Your task to perform on an android device: manage bookmarks in the chrome app Image 0: 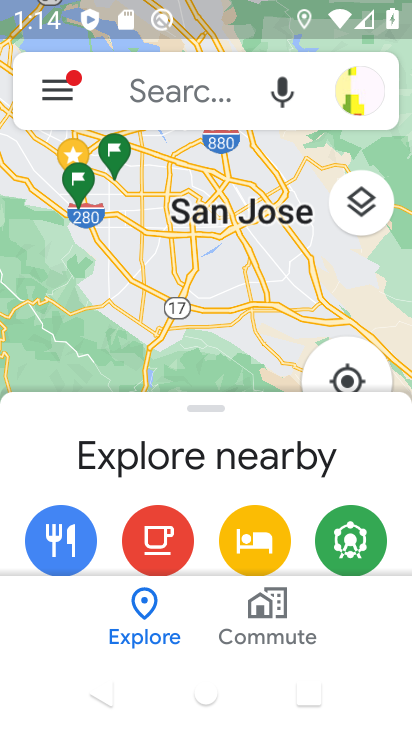
Step 0: press home button
Your task to perform on an android device: manage bookmarks in the chrome app Image 1: 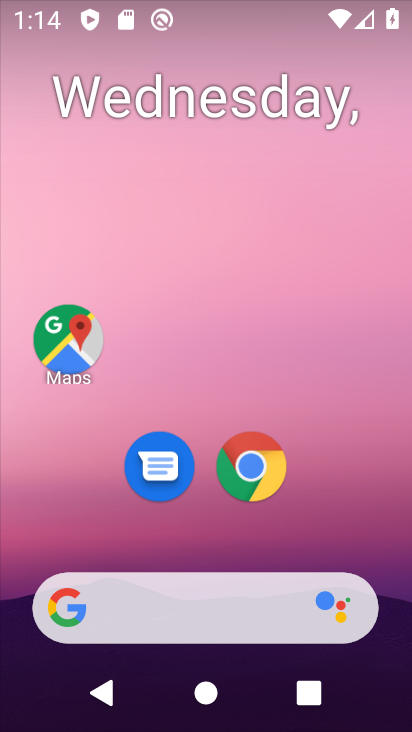
Step 1: click (252, 465)
Your task to perform on an android device: manage bookmarks in the chrome app Image 2: 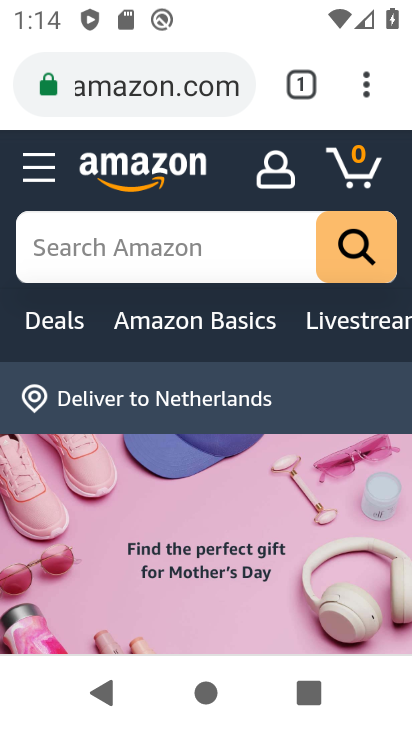
Step 2: click (373, 88)
Your task to perform on an android device: manage bookmarks in the chrome app Image 3: 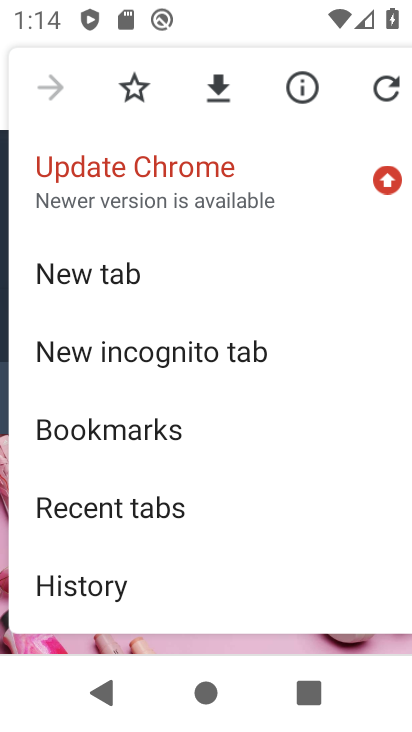
Step 3: click (216, 446)
Your task to perform on an android device: manage bookmarks in the chrome app Image 4: 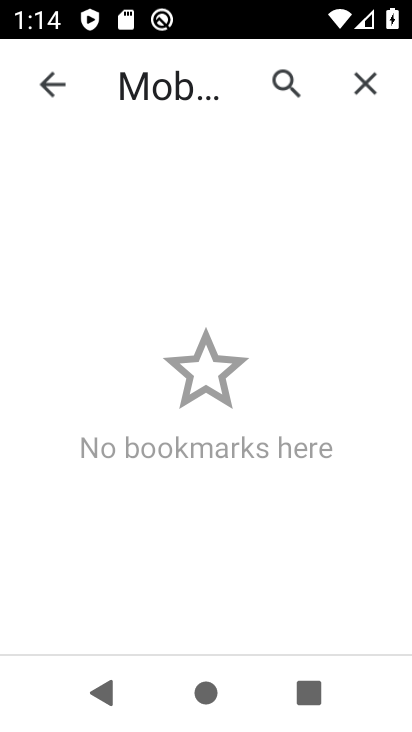
Step 4: task complete